Your task to perform on an android device: turn pop-ups off in chrome Image 0: 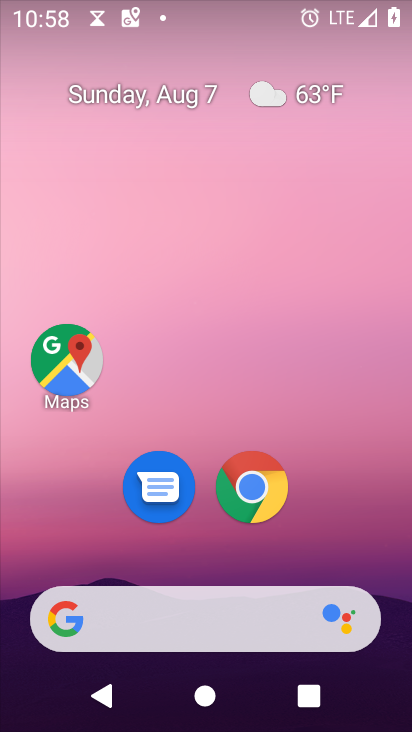
Step 0: click (253, 491)
Your task to perform on an android device: turn pop-ups off in chrome Image 1: 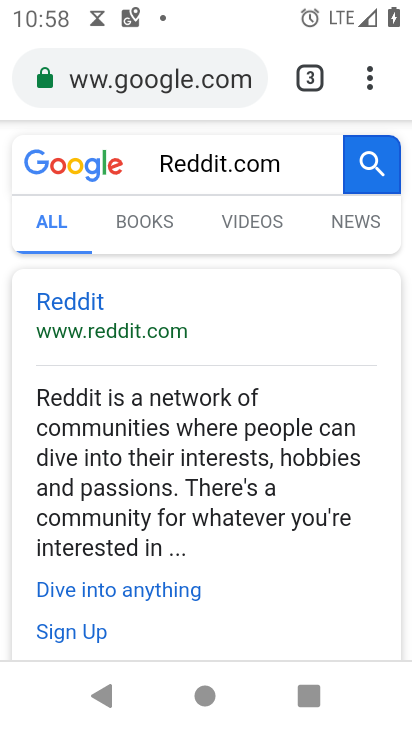
Step 1: click (369, 73)
Your task to perform on an android device: turn pop-ups off in chrome Image 2: 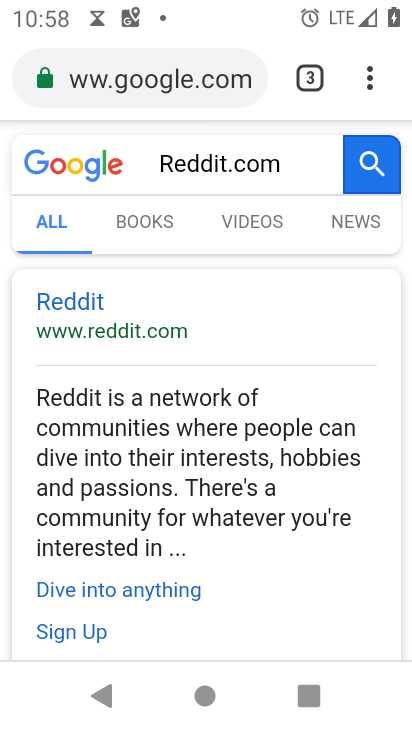
Step 2: click (364, 80)
Your task to perform on an android device: turn pop-ups off in chrome Image 3: 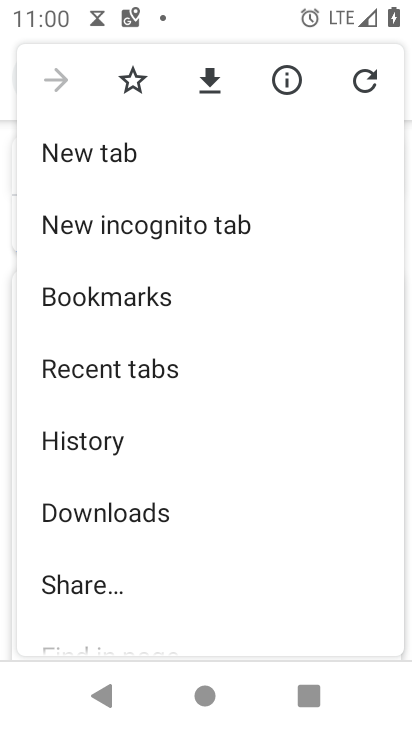
Step 3: drag from (339, 584) to (309, 231)
Your task to perform on an android device: turn pop-ups off in chrome Image 4: 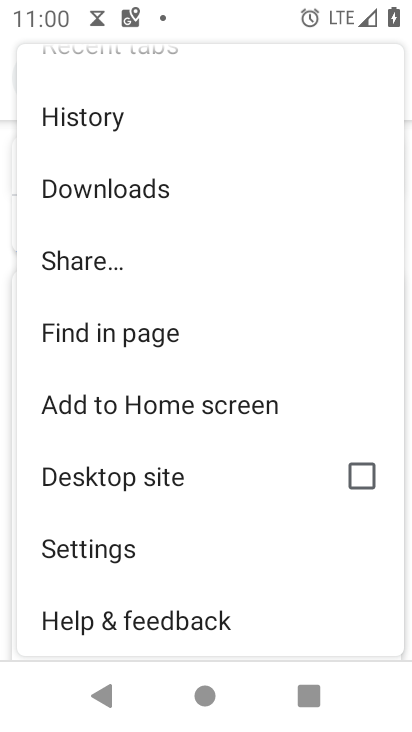
Step 4: click (77, 541)
Your task to perform on an android device: turn pop-ups off in chrome Image 5: 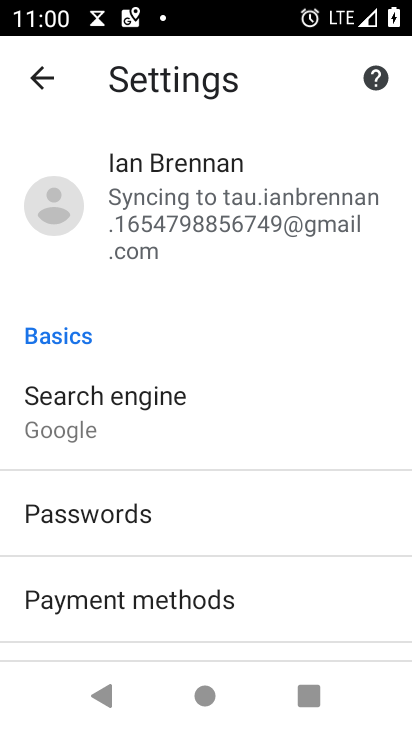
Step 5: drag from (266, 441) to (265, 193)
Your task to perform on an android device: turn pop-ups off in chrome Image 6: 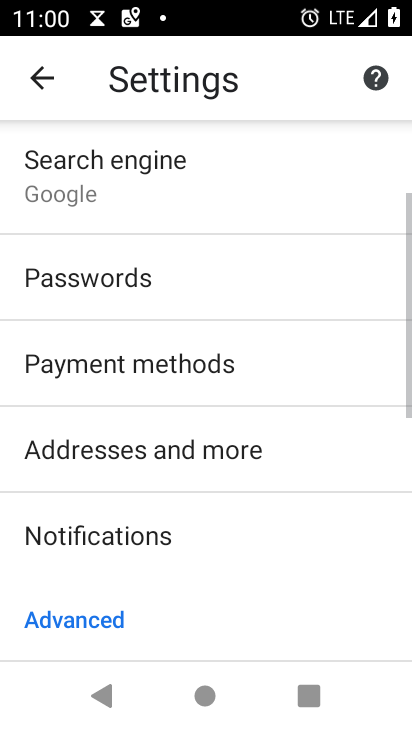
Step 6: drag from (281, 598) to (279, 202)
Your task to perform on an android device: turn pop-ups off in chrome Image 7: 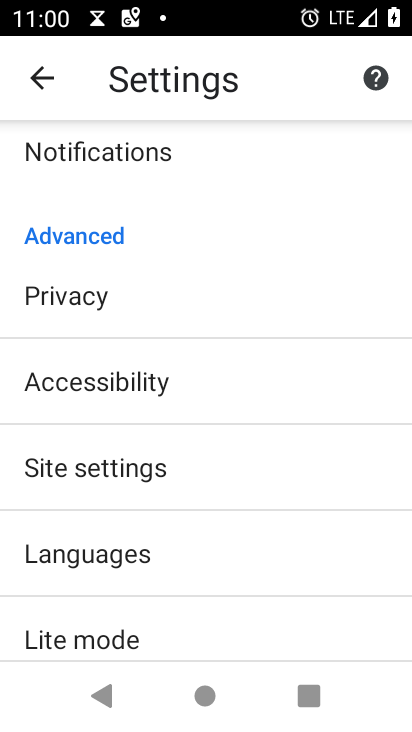
Step 7: drag from (264, 462) to (263, 309)
Your task to perform on an android device: turn pop-ups off in chrome Image 8: 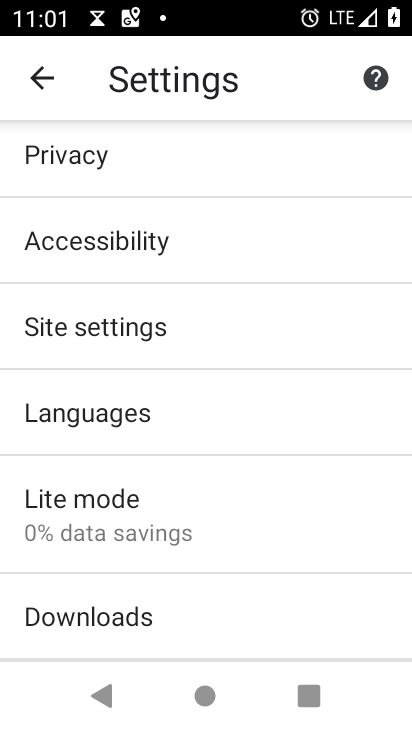
Step 8: click (105, 324)
Your task to perform on an android device: turn pop-ups off in chrome Image 9: 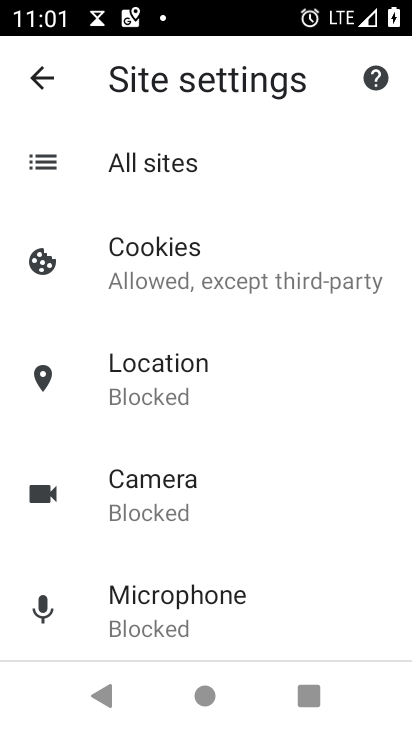
Step 9: drag from (295, 566) to (281, 179)
Your task to perform on an android device: turn pop-ups off in chrome Image 10: 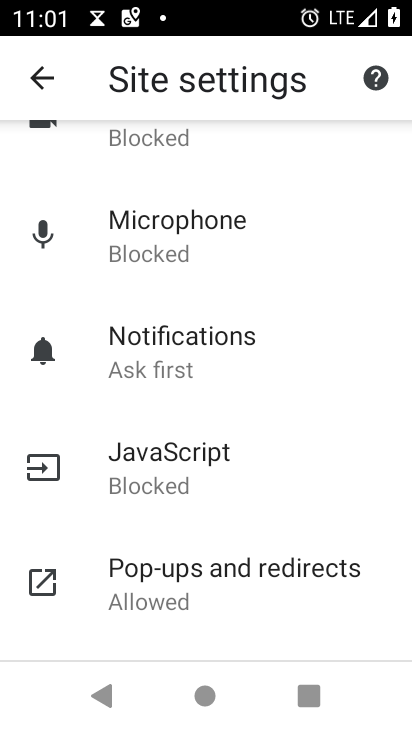
Step 10: click (191, 573)
Your task to perform on an android device: turn pop-ups off in chrome Image 11: 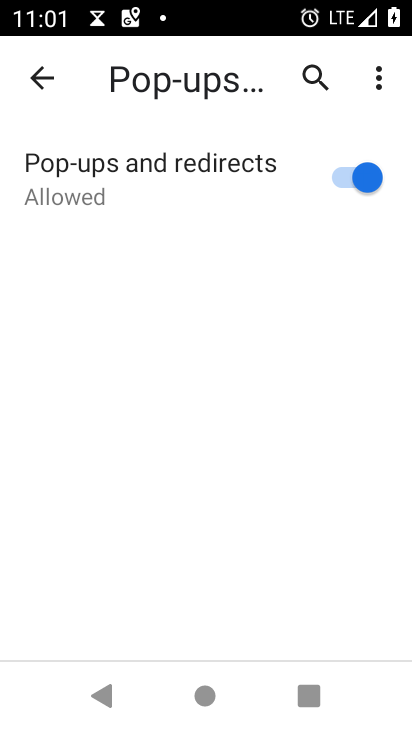
Step 11: click (344, 166)
Your task to perform on an android device: turn pop-ups off in chrome Image 12: 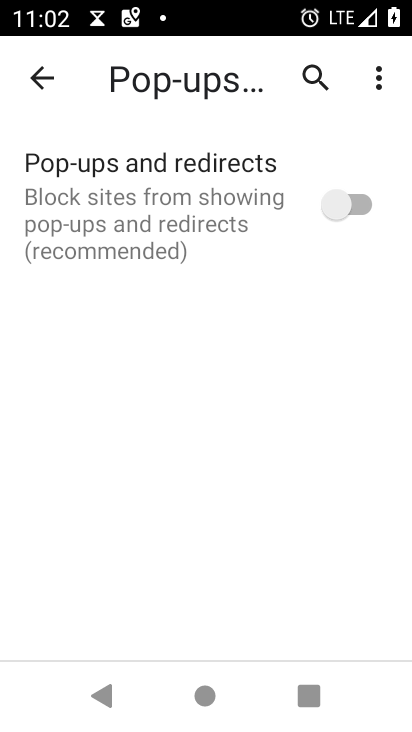
Step 12: task complete